Your task to perform on an android device: toggle priority inbox in the gmail app Image 0: 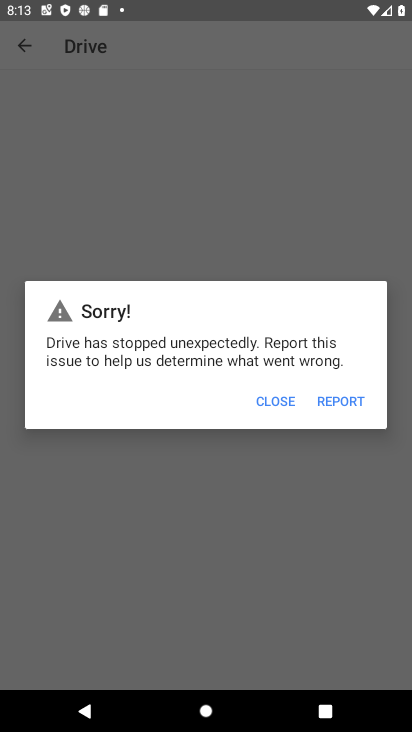
Step 0: press home button
Your task to perform on an android device: toggle priority inbox in the gmail app Image 1: 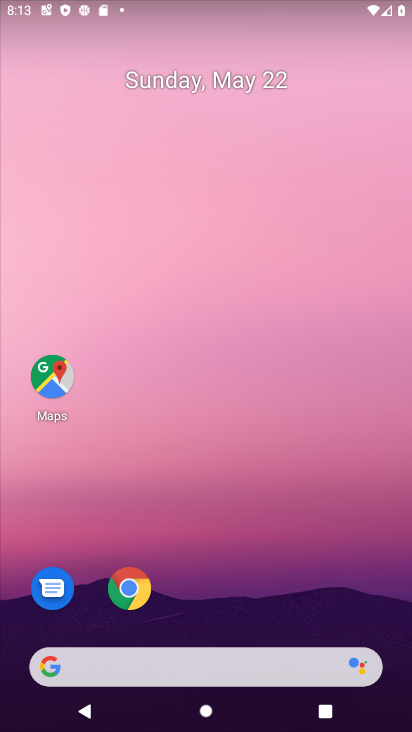
Step 1: drag from (234, 517) to (220, 28)
Your task to perform on an android device: toggle priority inbox in the gmail app Image 2: 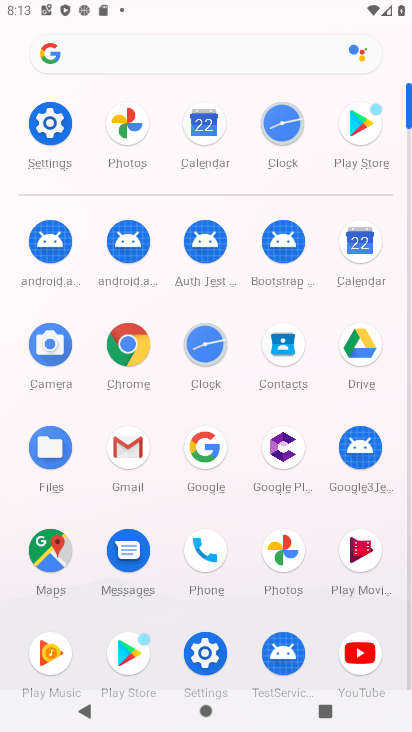
Step 2: click (124, 447)
Your task to perform on an android device: toggle priority inbox in the gmail app Image 3: 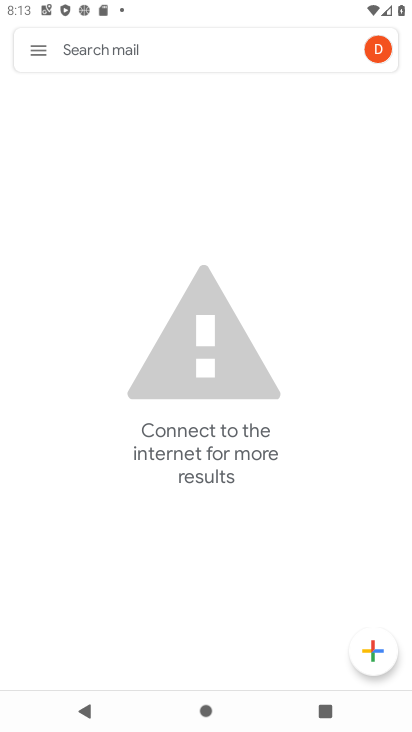
Step 3: click (35, 48)
Your task to perform on an android device: toggle priority inbox in the gmail app Image 4: 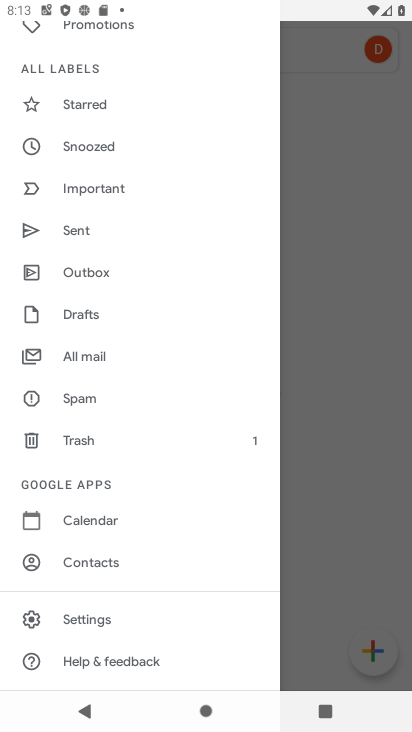
Step 4: click (79, 616)
Your task to perform on an android device: toggle priority inbox in the gmail app Image 5: 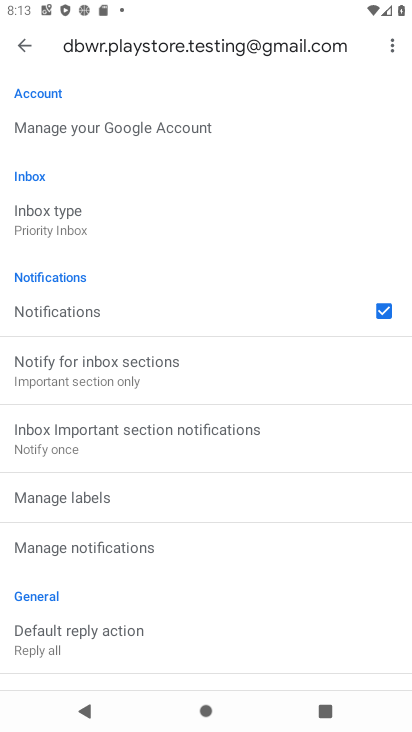
Step 5: click (54, 213)
Your task to perform on an android device: toggle priority inbox in the gmail app Image 6: 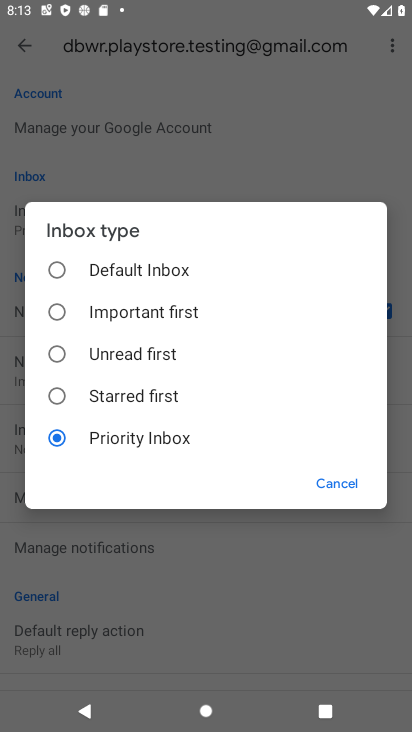
Step 6: click (58, 264)
Your task to perform on an android device: toggle priority inbox in the gmail app Image 7: 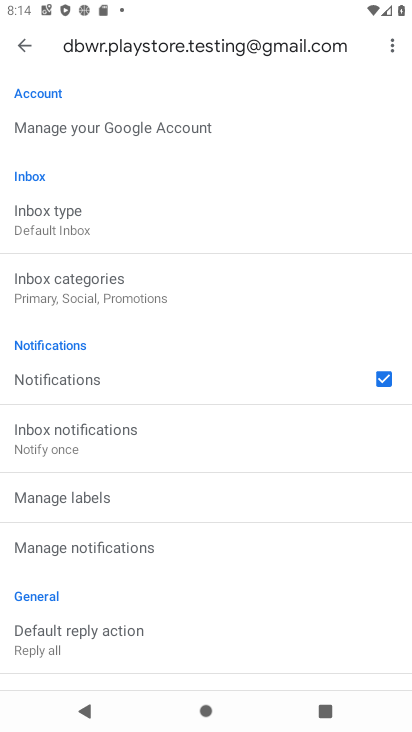
Step 7: task complete